Your task to perform on an android device: check data usage Image 0: 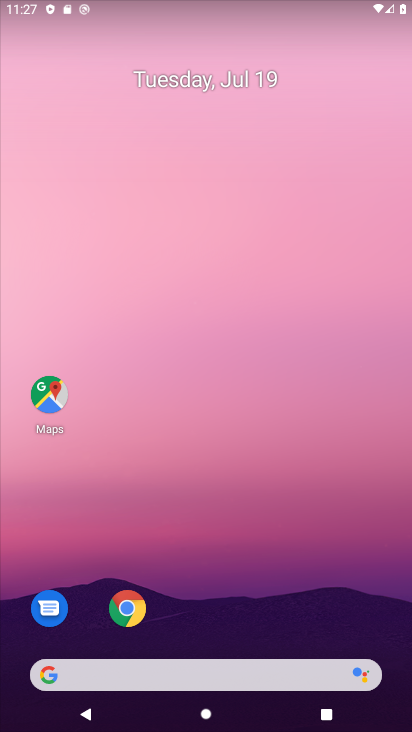
Step 0: drag from (176, 624) to (169, 33)
Your task to perform on an android device: check data usage Image 1: 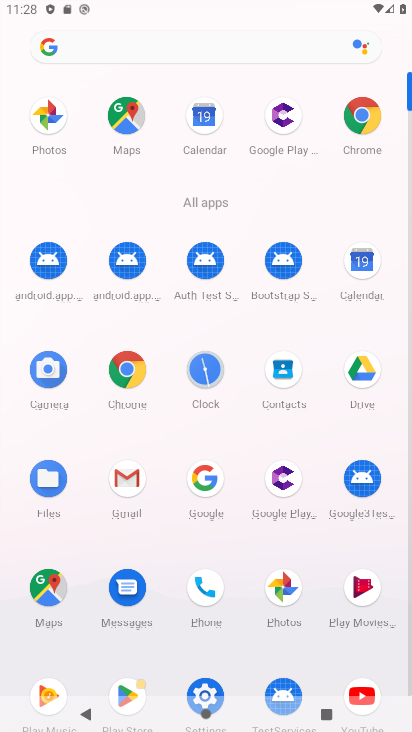
Step 1: click (208, 685)
Your task to perform on an android device: check data usage Image 2: 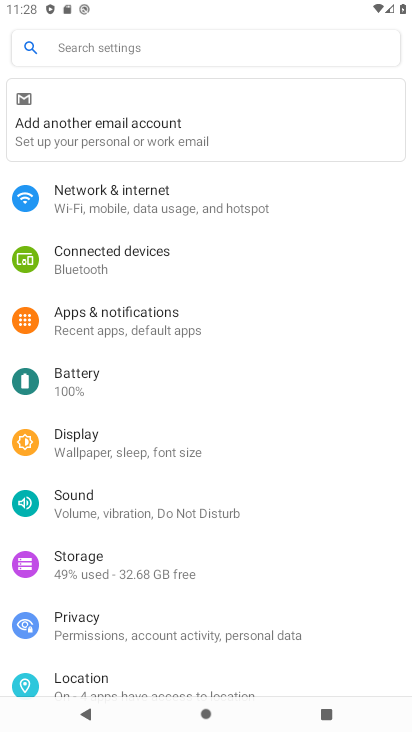
Step 2: click (142, 195)
Your task to perform on an android device: check data usage Image 3: 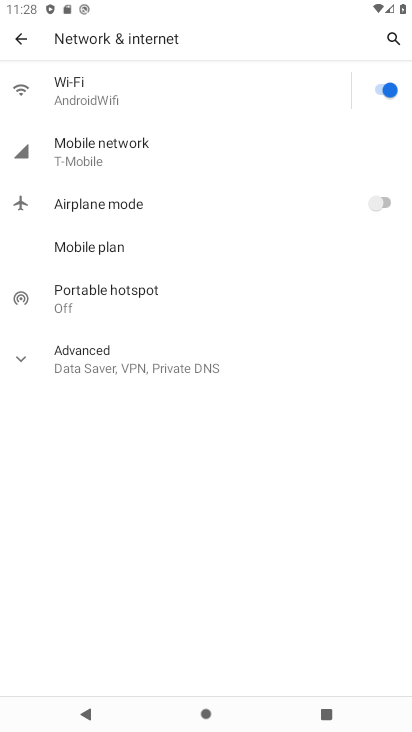
Step 3: click (90, 155)
Your task to perform on an android device: check data usage Image 4: 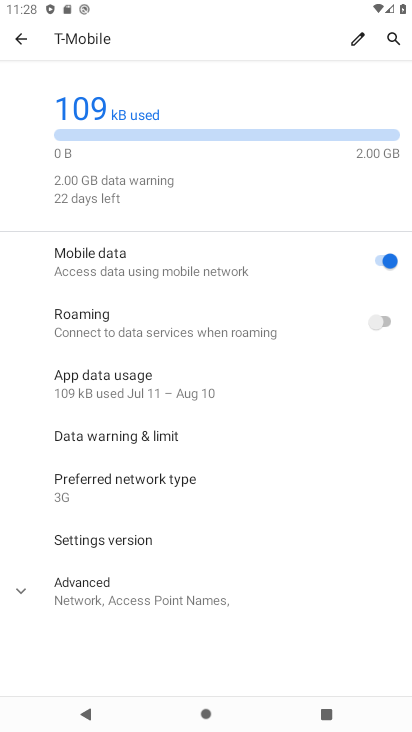
Step 4: task complete